Your task to perform on an android device: snooze an email in the gmail app Image 0: 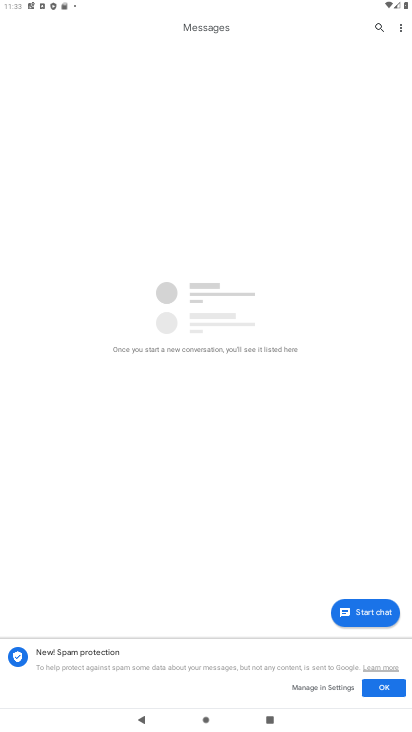
Step 0: press home button
Your task to perform on an android device: snooze an email in the gmail app Image 1: 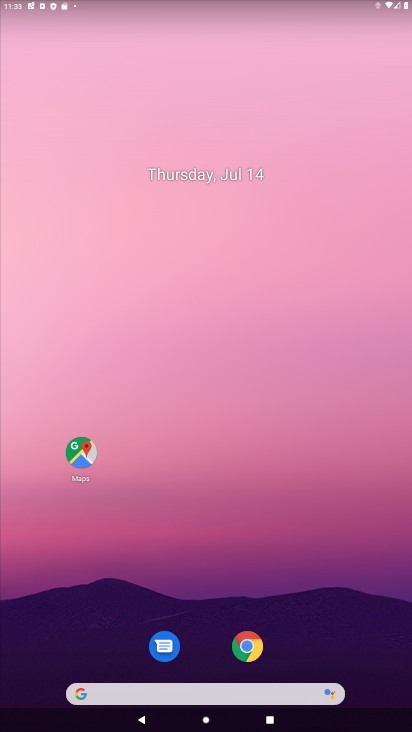
Step 1: drag from (204, 648) to (222, 237)
Your task to perform on an android device: snooze an email in the gmail app Image 2: 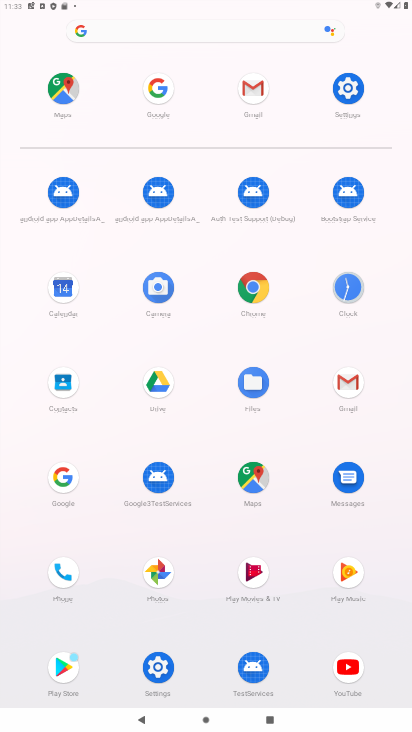
Step 2: click (264, 94)
Your task to perform on an android device: snooze an email in the gmail app Image 3: 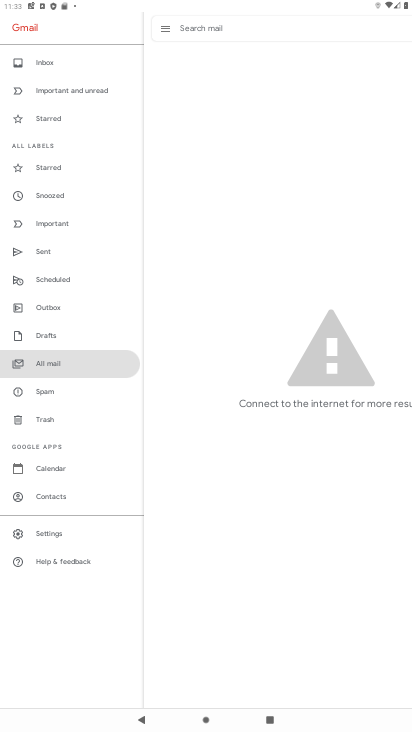
Step 3: task complete